Your task to perform on an android device: Go to Google Image 0: 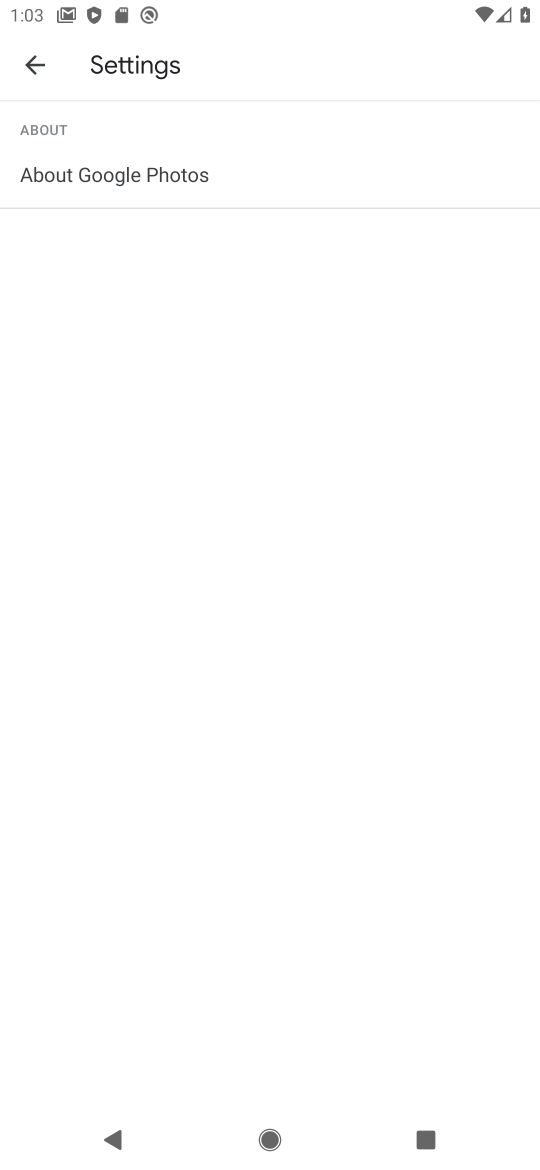
Step 0: press home button
Your task to perform on an android device: Go to Google Image 1: 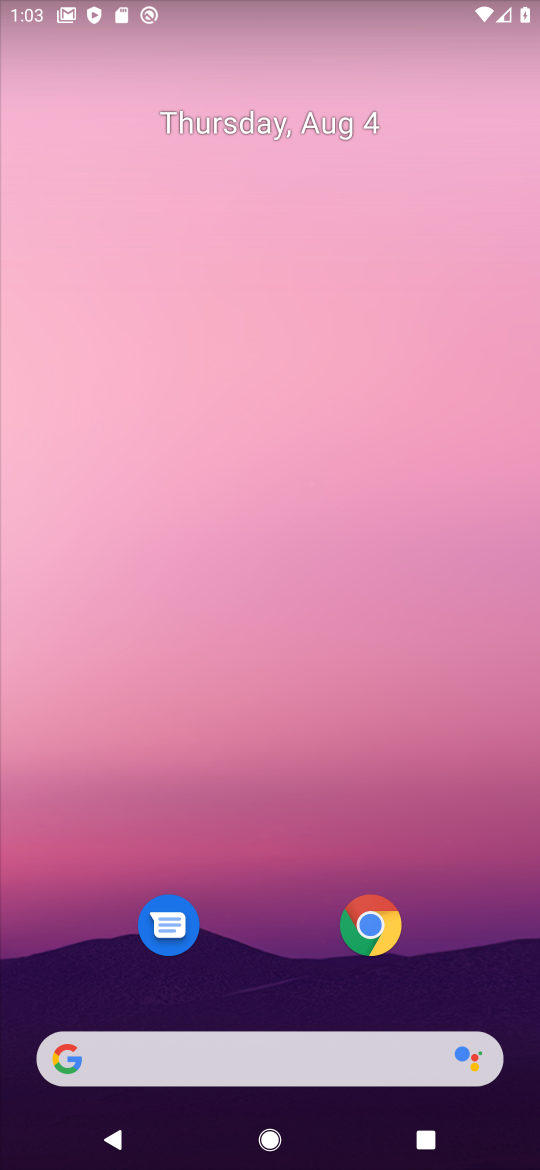
Step 1: drag from (248, 938) to (227, 397)
Your task to perform on an android device: Go to Google Image 2: 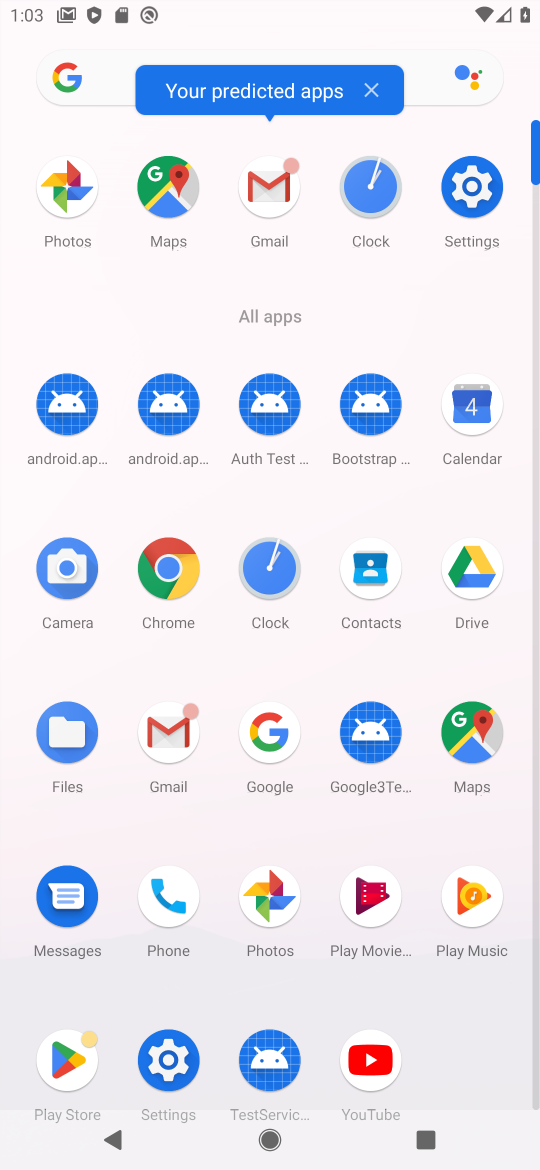
Step 2: click (258, 738)
Your task to perform on an android device: Go to Google Image 3: 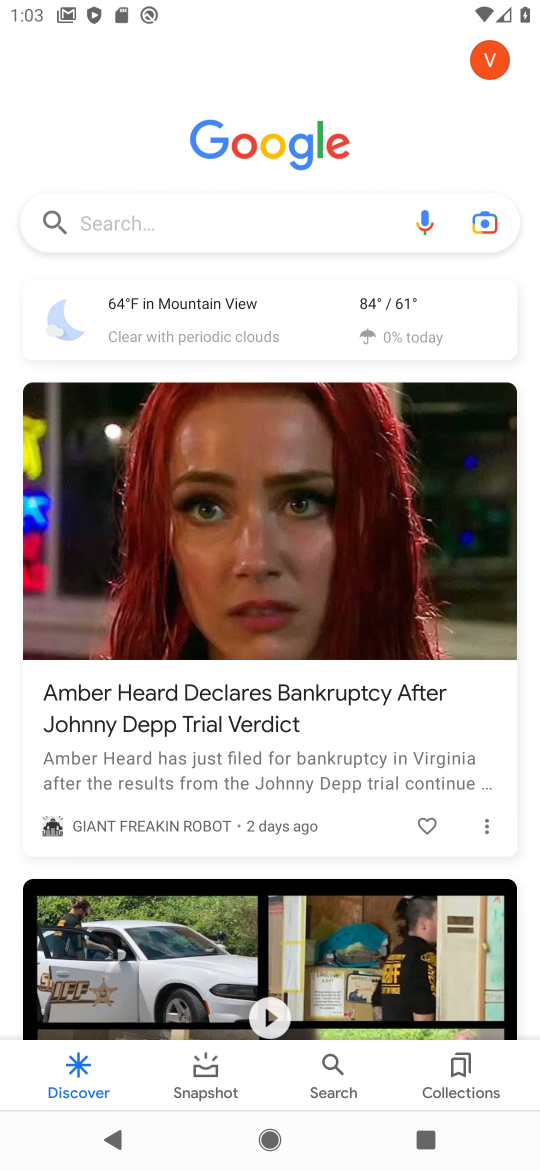
Step 3: task complete